Your task to perform on an android device: Add "acer nitro" to the cart on target Image 0: 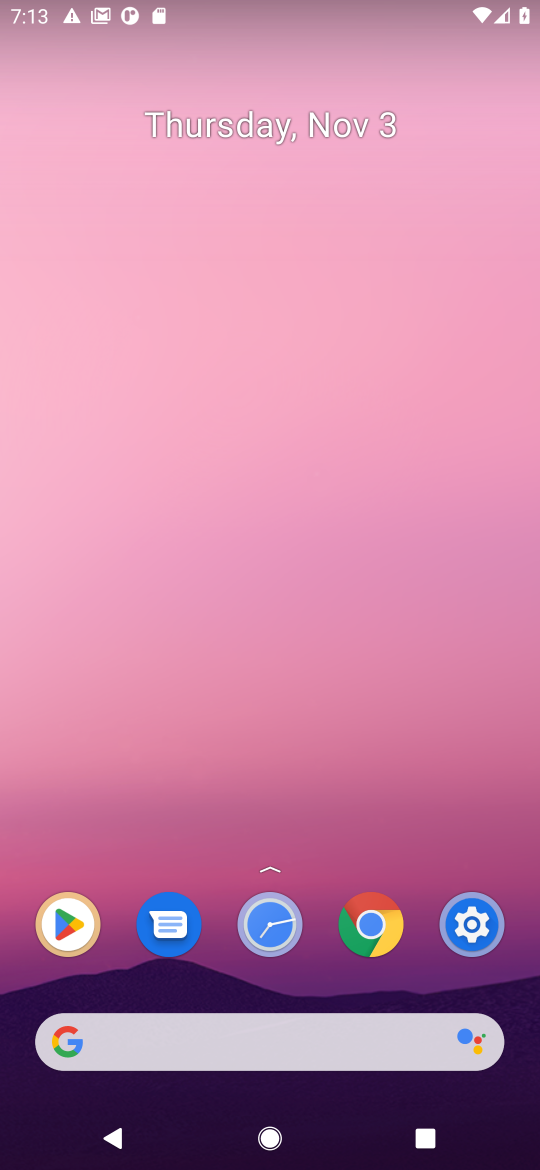
Step 0: click (246, 1044)
Your task to perform on an android device: Add "acer nitro" to the cart on target Image 1: 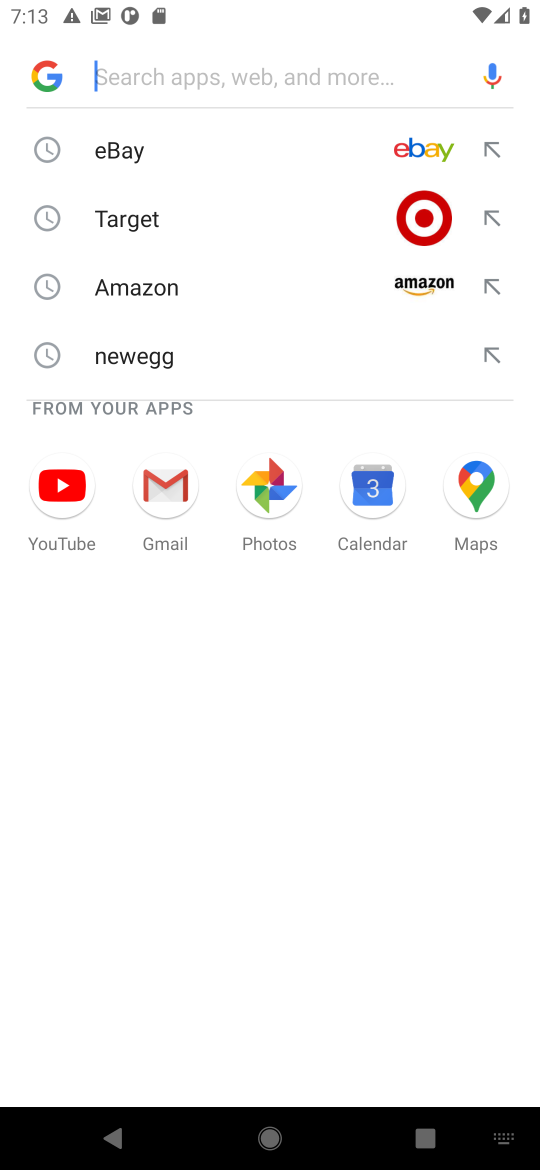
Step 1: type "target"
Your task to perform on an android device: Add "acer nitro" to the cart on target Image 2: 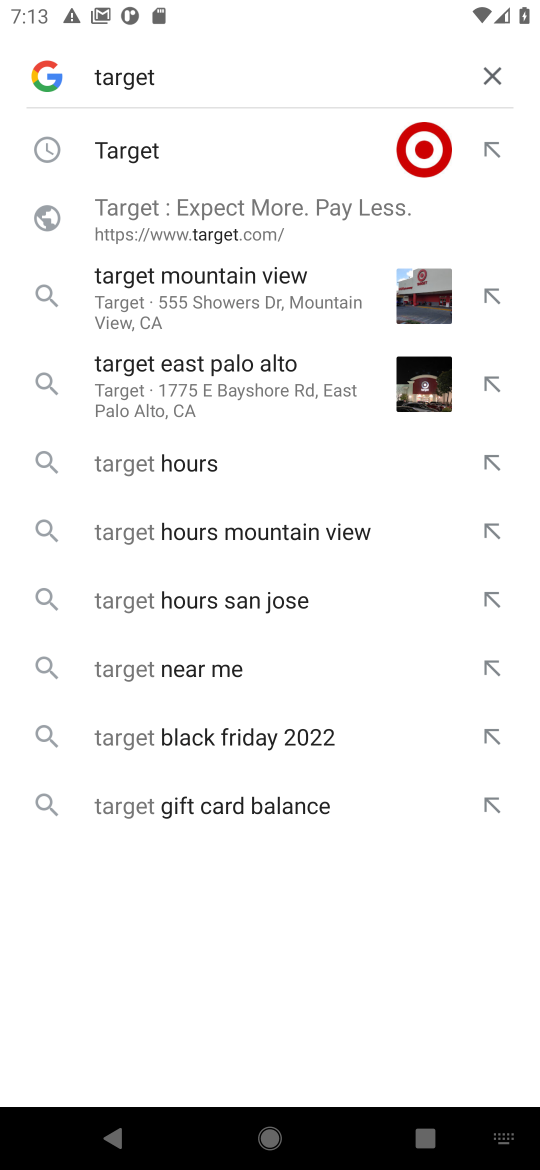
Step 2: click (137, 152)
Your task to perform on an android device: Add "acer nitro" to the cart on target Image 3: 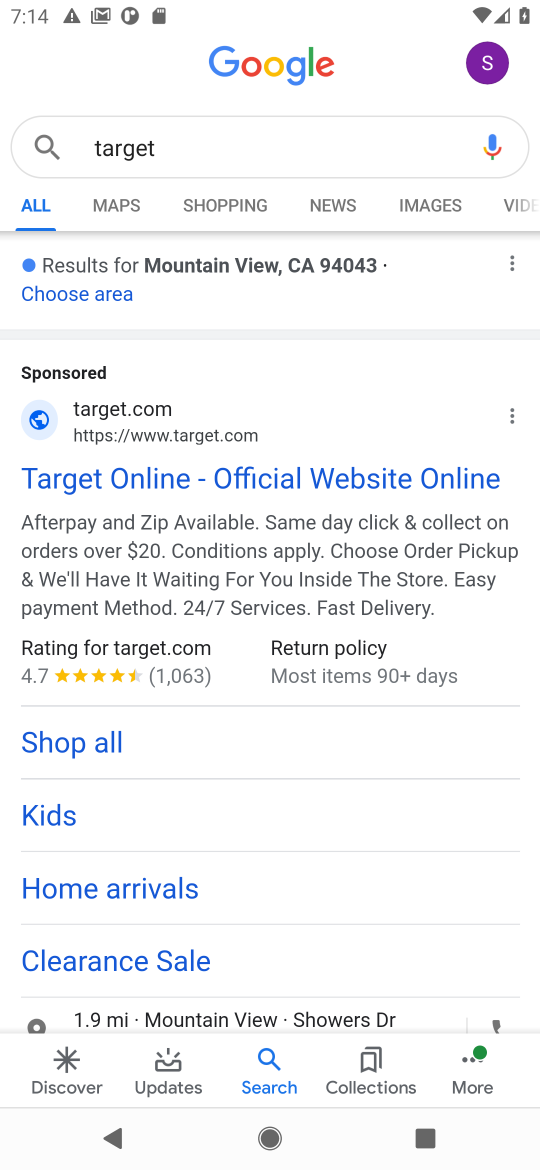
Step 3: click (111, 993)
Your task to perform on an android device: Add "acer nitro" to the cart on target Image 4: 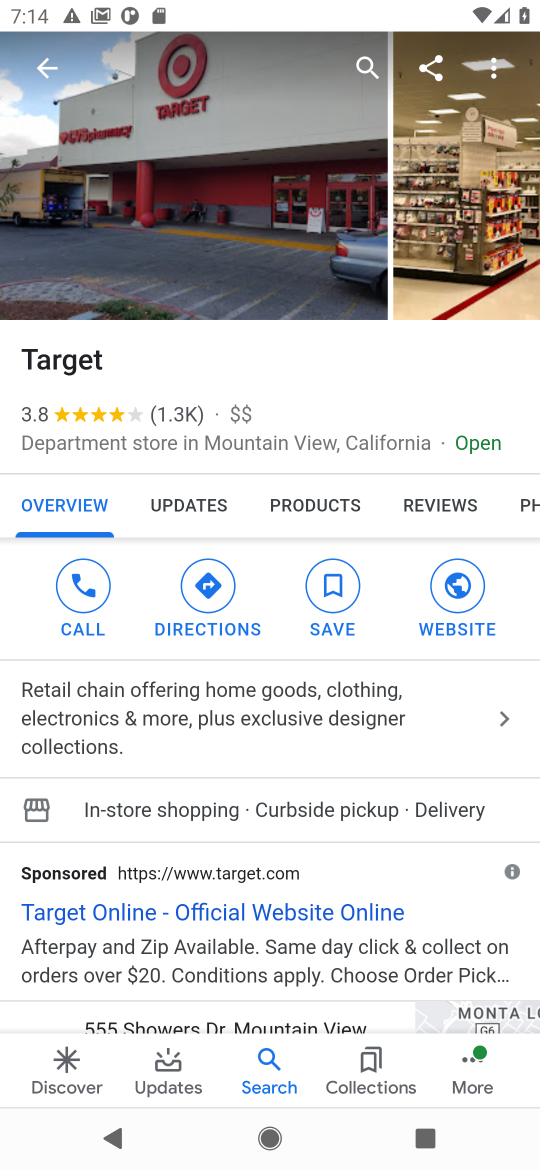
Step 4: click (453, 586)
Your task to perform on an android device: Add "acer nitro" to the cart on target Image 5: 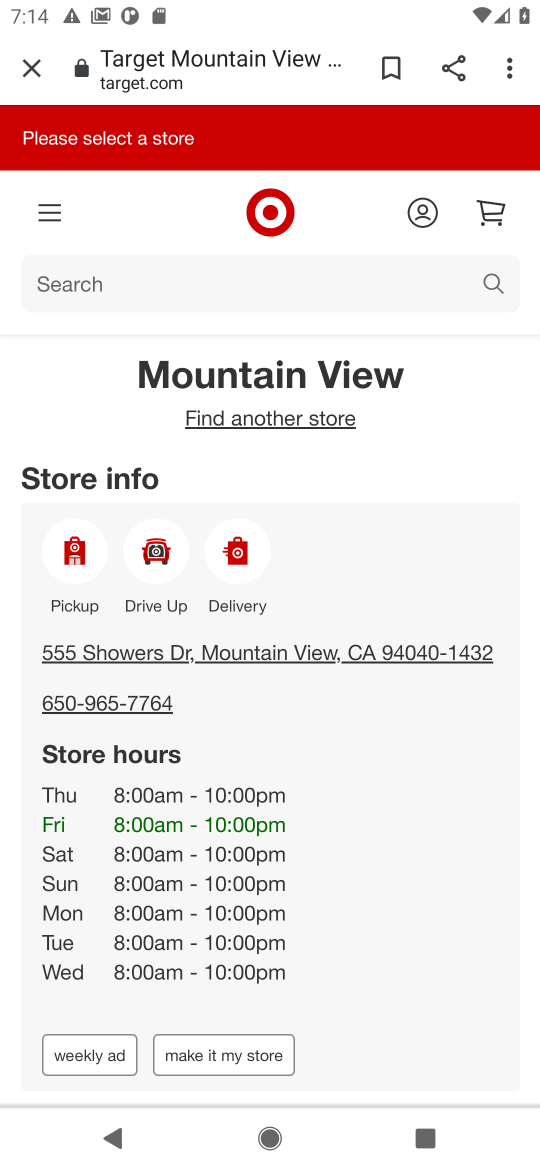
Step 5: click (191, 274)
Your task to perform on an android device: Add "acer nitro" to the cart on target Image 6: 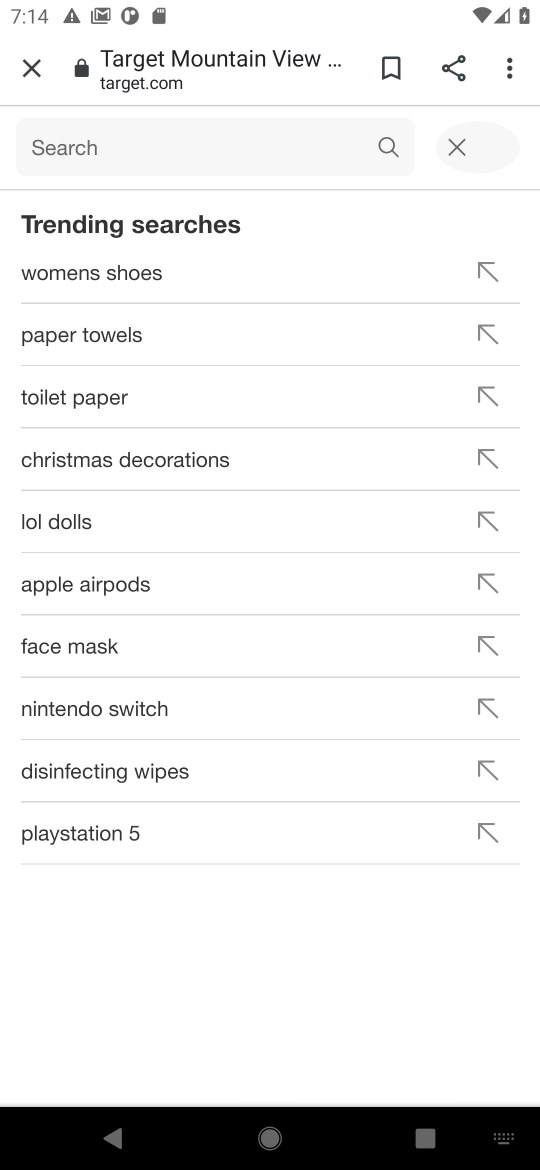
Step 6: type "acer nitro"
Your task to perform on an android device: Add "acer nitro" to the cart on target Image 7: 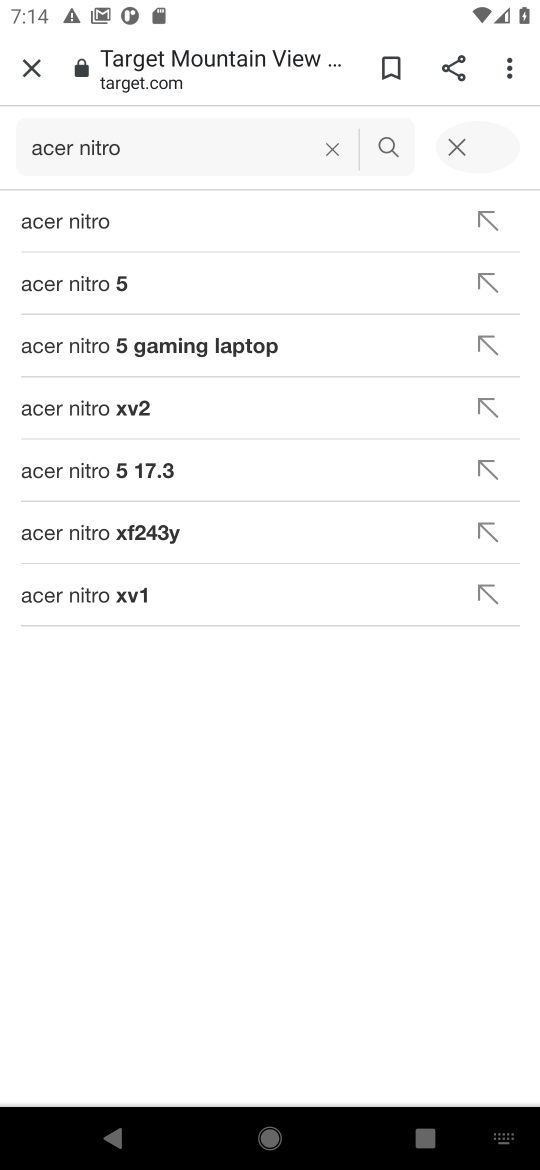
Step 7: click (104, 217)
Your task to perform on an android device: Add "acer nitro" to the cart on target Image 8: 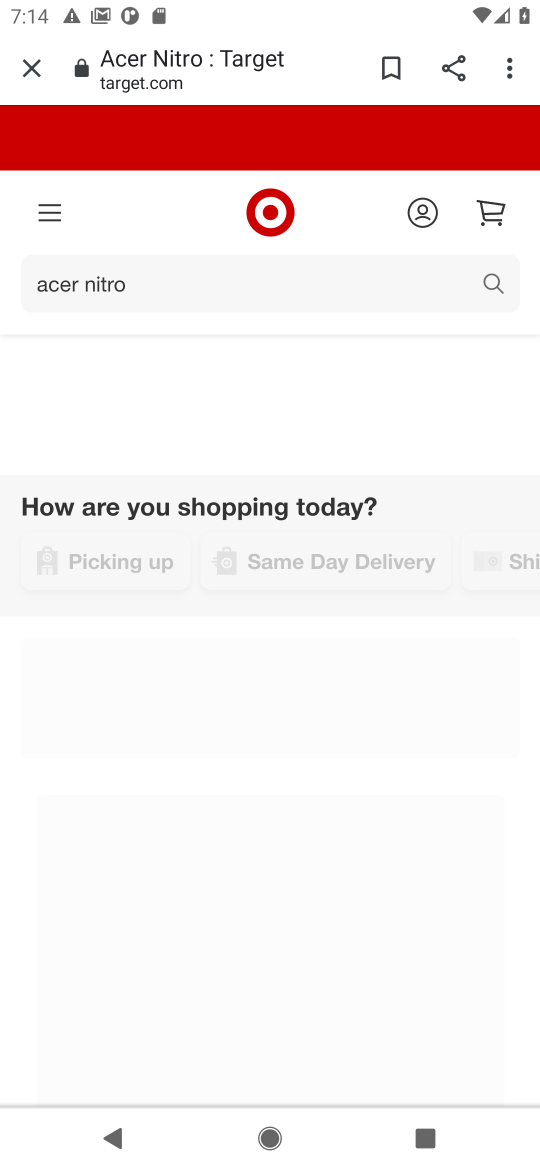
Step 8: drag from (450, 778) to (434, 445)
Your task to perform on an android device: Add "acer nitro" to the cart on target Image 9: 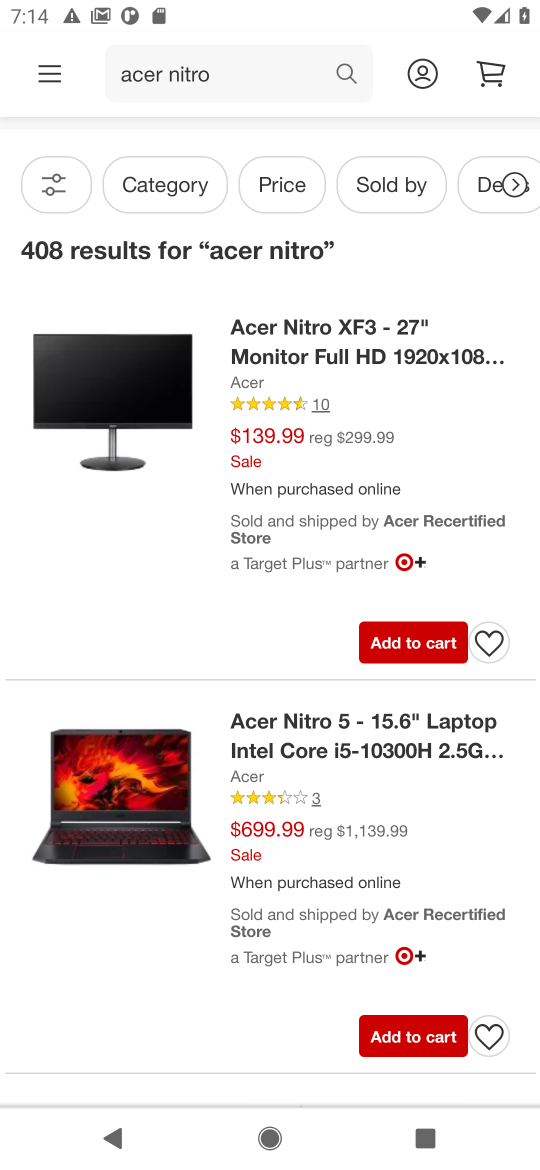
Step 9: click (400, 640)
Your task to perform on an android device: Add "acer nitro" to the cart on target Image 10: 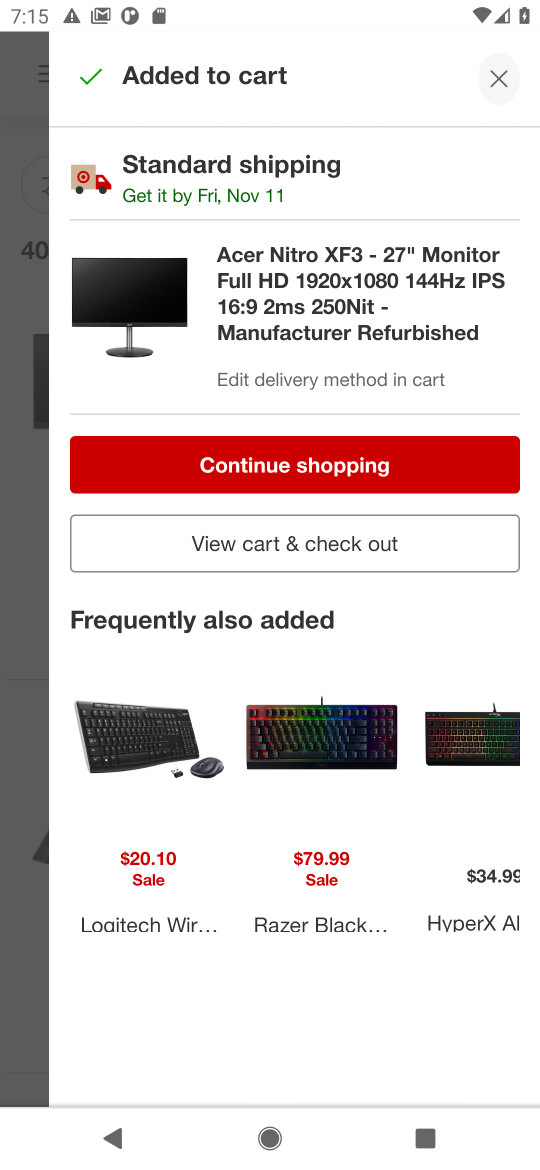
Step 10: task complete